Your task to perform on an android device: search for starred emails in the gmail app Image 0: 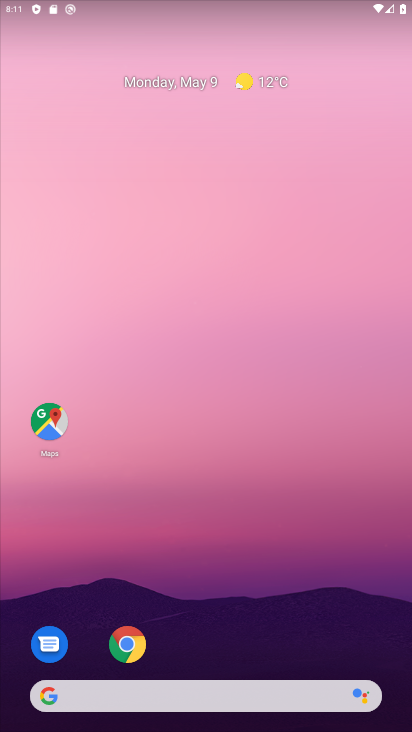
Step 0: drag from (215, 644) to (255, 2)
Your task to perform on an android device: search for starred emails in the gmail app Image 1: 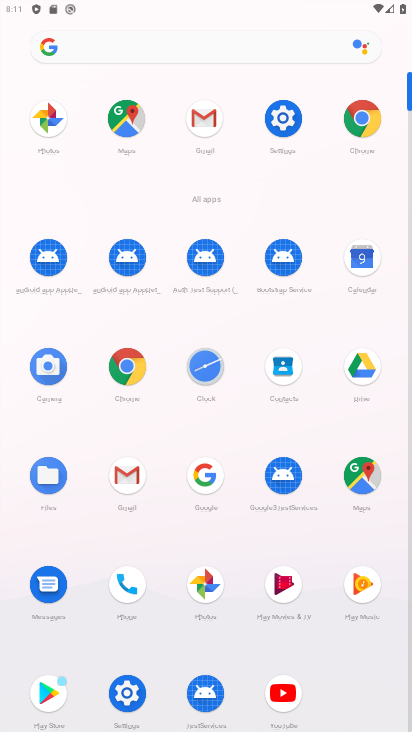
Step 1: click (205, 130)
Your task to perform on an android device: search for starred emails in the gmail app Image 2: 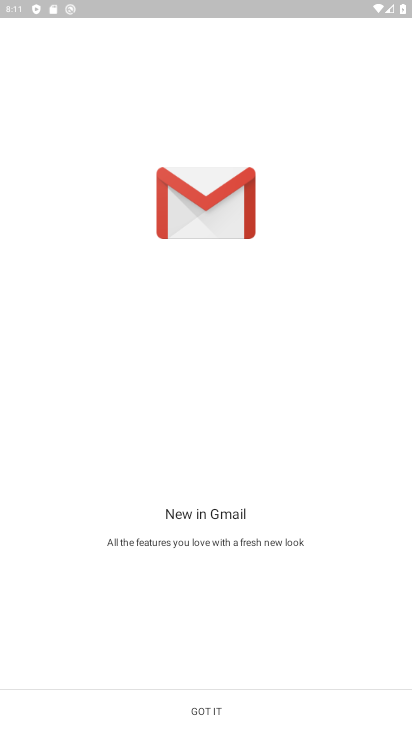
Step 2: click (207, 713)
Your task to perform on an android device: search for starred emails in the gmail app Image 3: 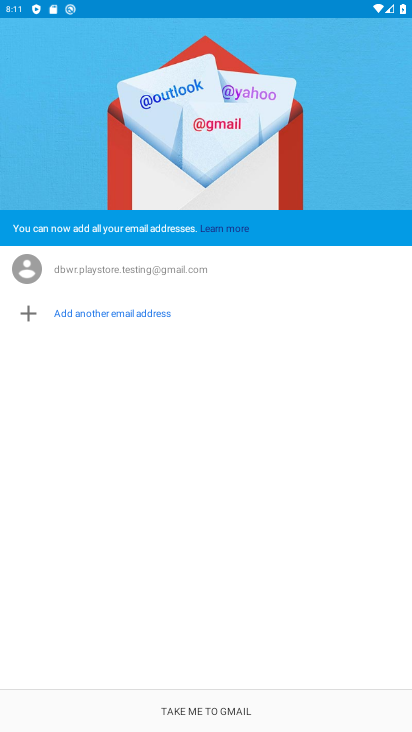
Step 3: click (205, 711)
Your task to perform on an android device: search for starred emails in the gmail app Image 4: 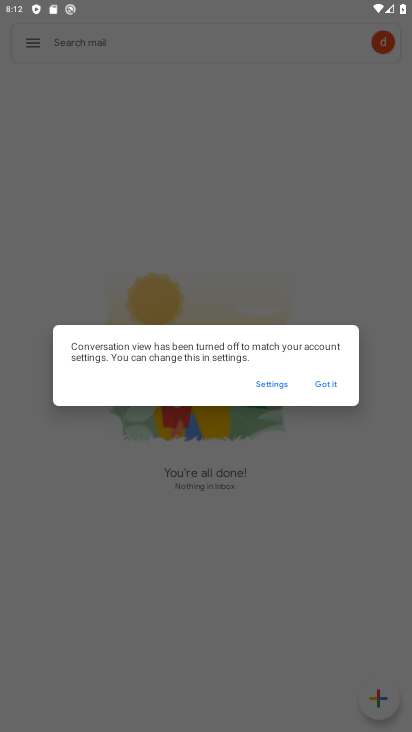
Step 4: press back button
Your task to perform on an android device: search for starred emails in the gmail app Image 5: 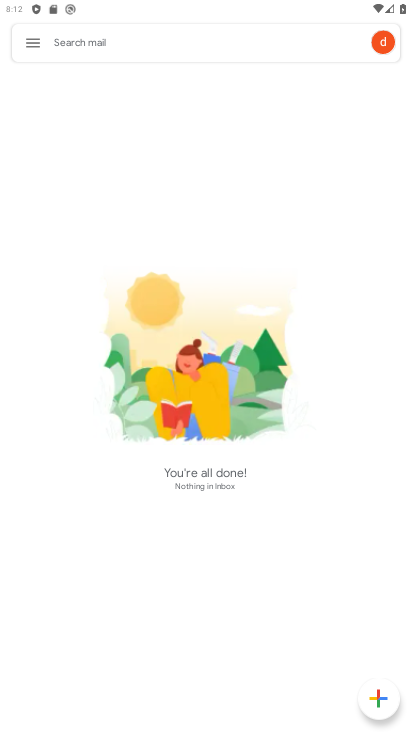
Step 5: click (31, 35)
Your task to perform on an android device: search for starred emails in the gmail app Image 6: 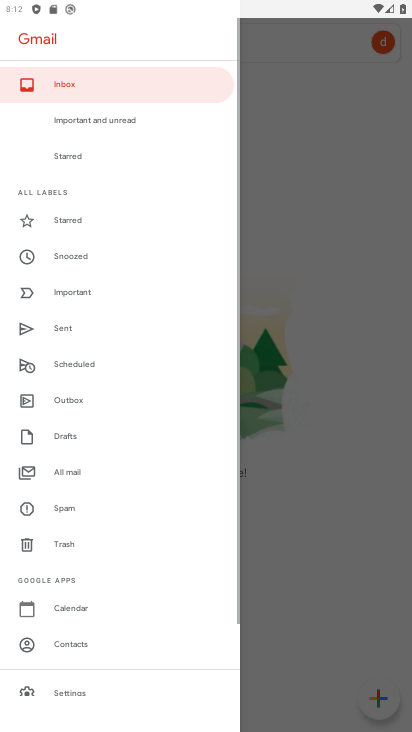
Step 6: click (28, 43)
Your task to perform on an android device: search for starred emails in the gmail app Image 7: 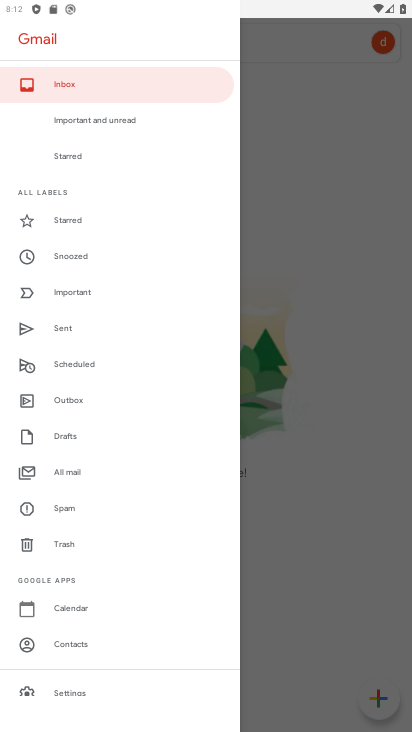
Step 7: click (80, 221)
Your task to perform on an android device: search for starred emails in the gmail app Image 8: 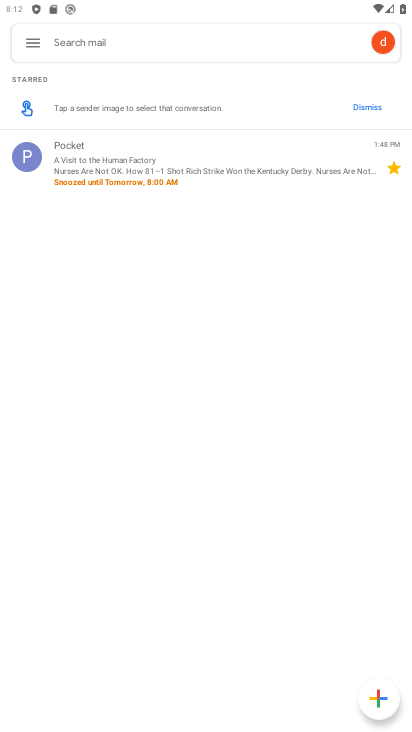
Step 8: task complete